Your task to perform on an android device: Do I have any events today? Image 0: 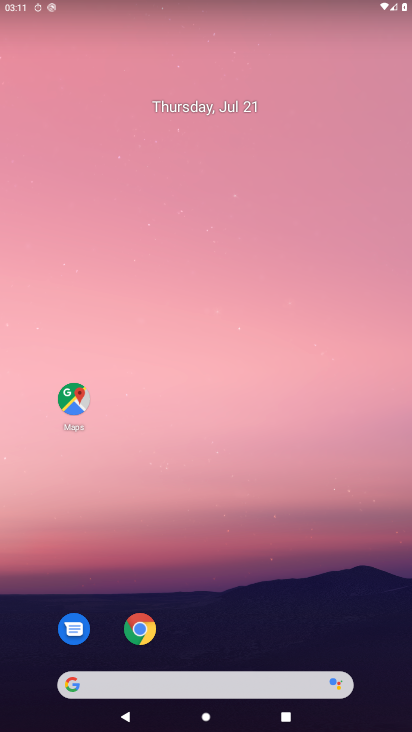
Step 0: click (133, 691)
Your task to perform on an android device: Do I have any events today? Image 1: 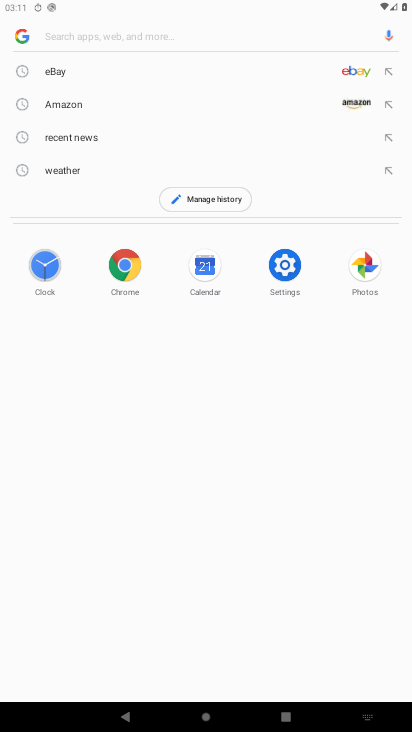
Step 1: press home button
Your task to perform on an android device: Do I have any events today? Image 2: 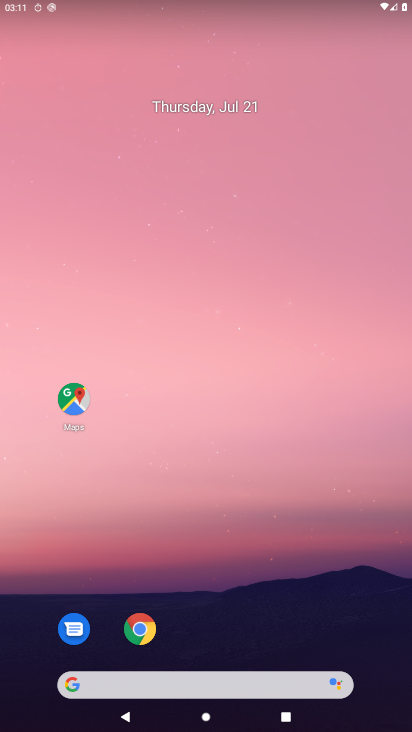
Step 2: drag from (38, 668) to (311, 330)
Your task to perform on an android device: Do I have any events today? Image 3: 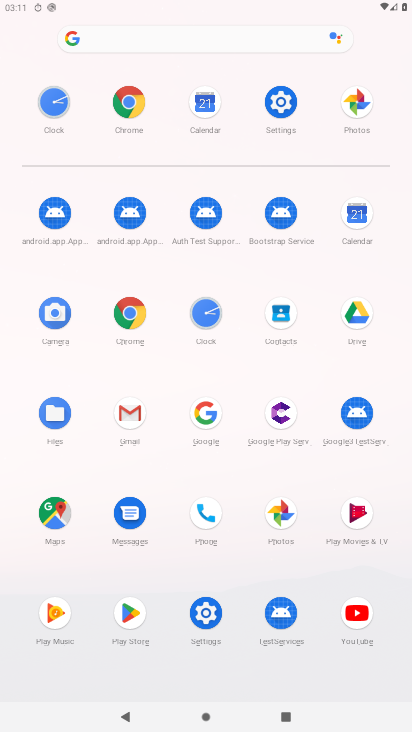
Step 3: click (370, 222)
Your task to perform on an android device: Do I have any events today? Image 4: 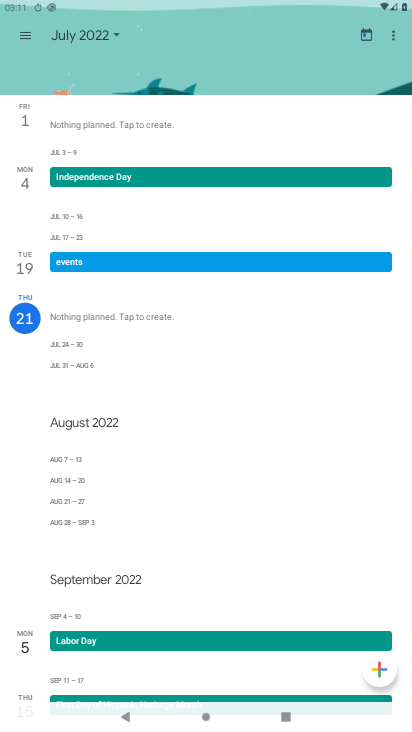
Step 4: click (109, 37)
Your task to perform on an android device: Do I have any events today? Image 5: 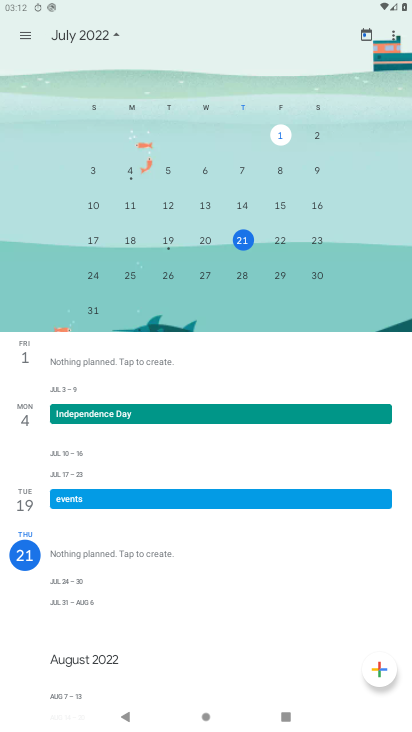
Step 5: task complete